Your task to perform on an android device: Do I have any events today? Image 0: 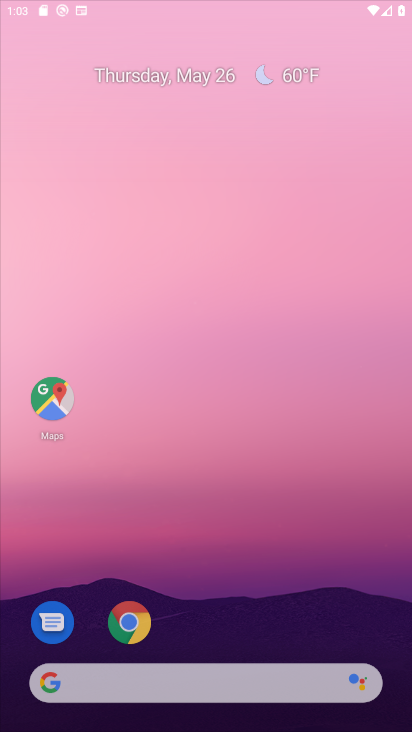
Step 0: click (217, 84)
Your task to perform on an android device: Do I have any events today? Image 1: 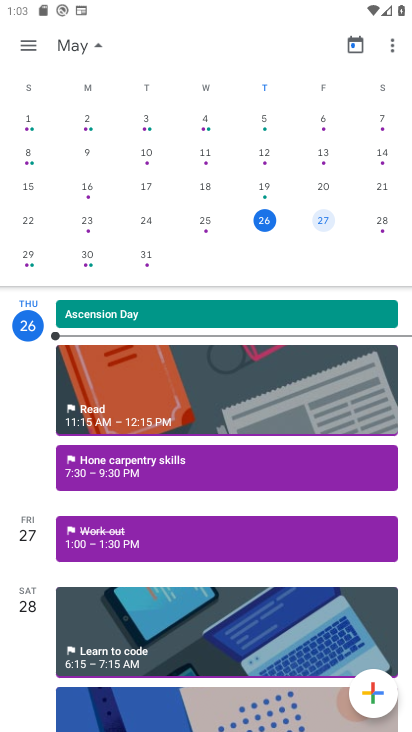
Step 1: task complete